Your task to perform on an android device: turn on javascript in the chrome app Image 0: 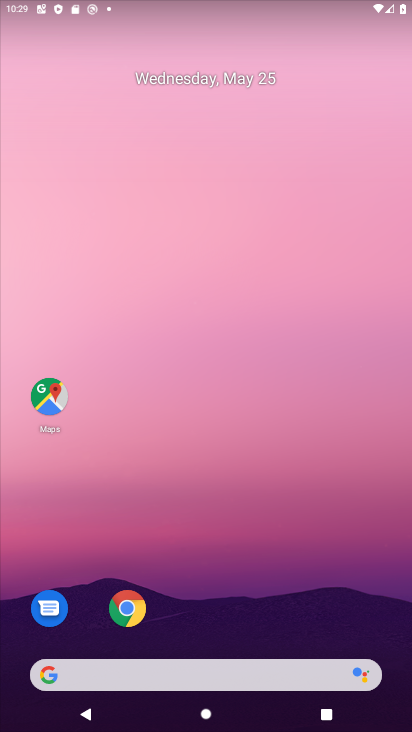
Step 0: click (128, 607)
Your task to perform on an android device: turn on javascript in the chrome app Image 1: 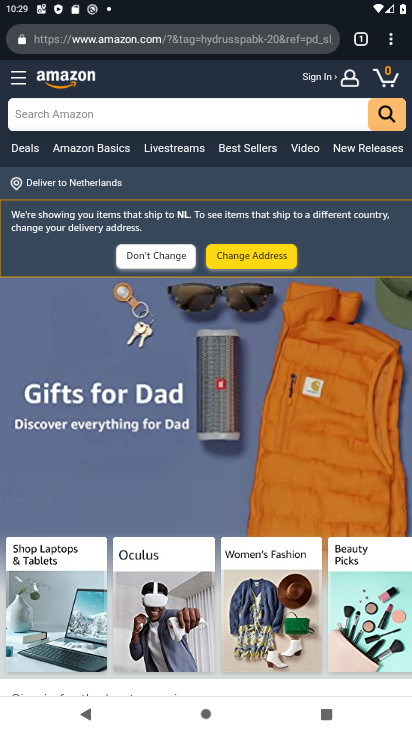
Step 1: click (392, 41)
Your task to perform on an android device: turn on javascript in the chrome app Image 2: 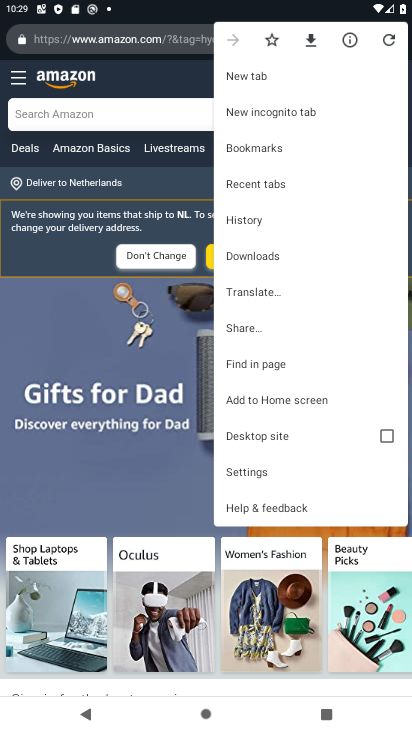
Step 2: click (250, 471)
Your task to perform on an android device: turn on javascript in the chrome app Image 3: 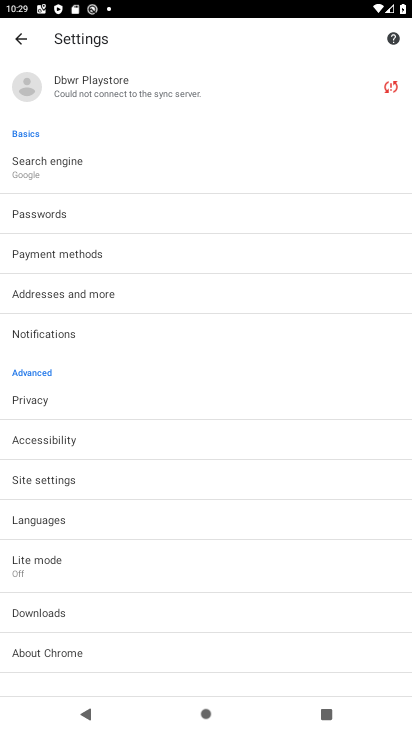
Step 3: click (50, 484)
Your task to perform on an android device: turn on javascript in the chrome app Image 4: 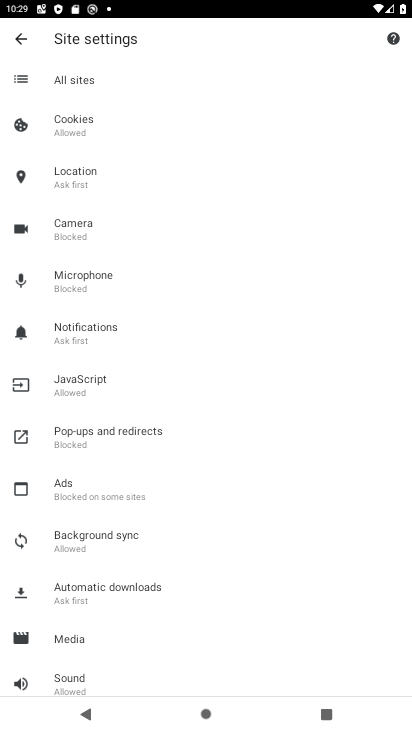
Step 4: click (76, 381)
Your task to perform on an android device: turn on javascript in the chrome app Image 5: 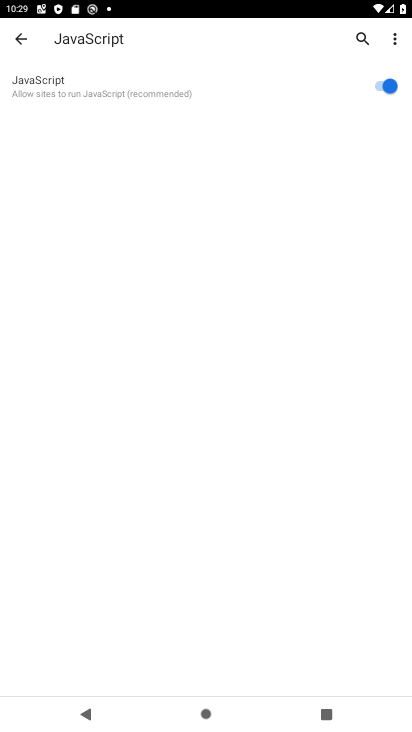
Step 5: task complete